Your task to perform on an android device: turn on bluetooth scan Image 0: 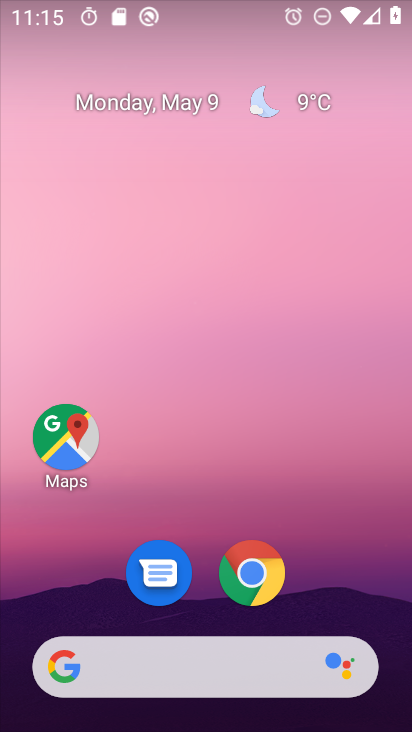
Step 0: drag from (313, 511) to (348, 117)
Your task to perform on an android device: turn on bluetooth scan Image 1: 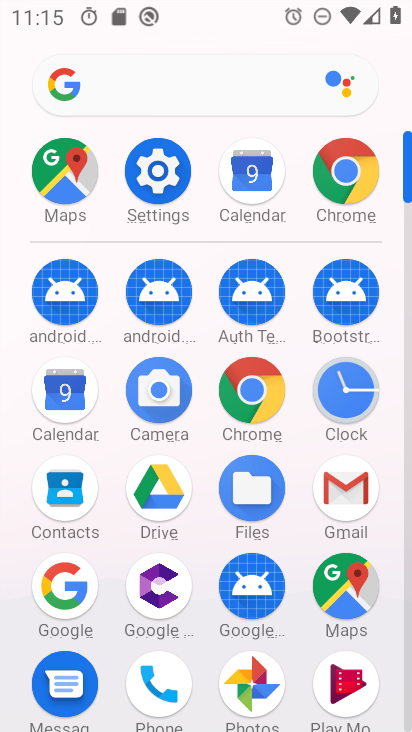
Step 1: click (156, 167)
Your task to perform on an android device: turn on bluetooth scan Image 2: 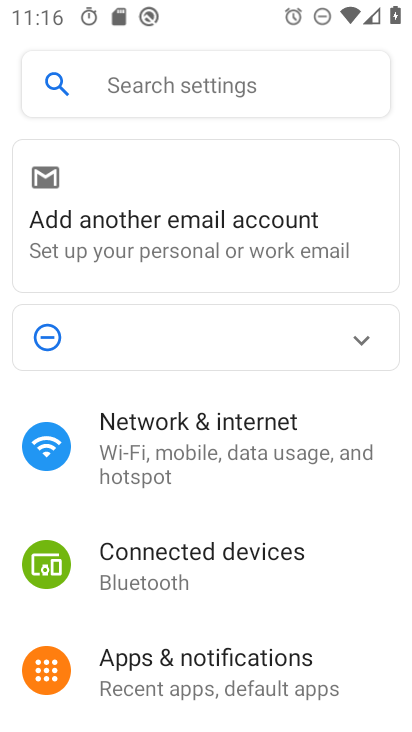
Step 2: drag from (229, 638) to (253, 192)
Your task to perform on an android device: turn on bluetooth scan Image 3: 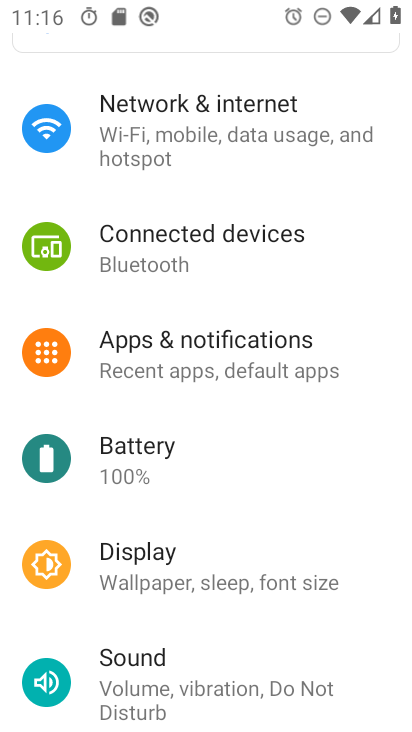
Step 3: drag from (256, 680) to (286, 233)
Your task to perform on an android device: turn on bluetooth scan Image 4: 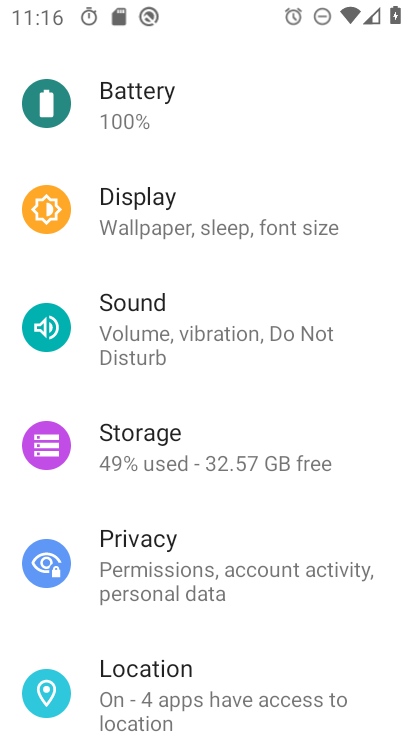
Step 4: click (179, 699)
Your task to perform on an android device: turn on bluetooth scan Image 5: 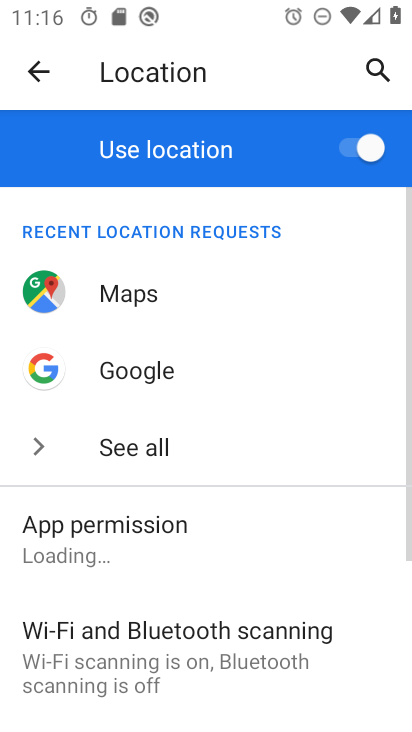
Step 5: drag from (311, 538) to (309, 143)
Your task to perform on an android device: turn on bluetooth scan Image 6: 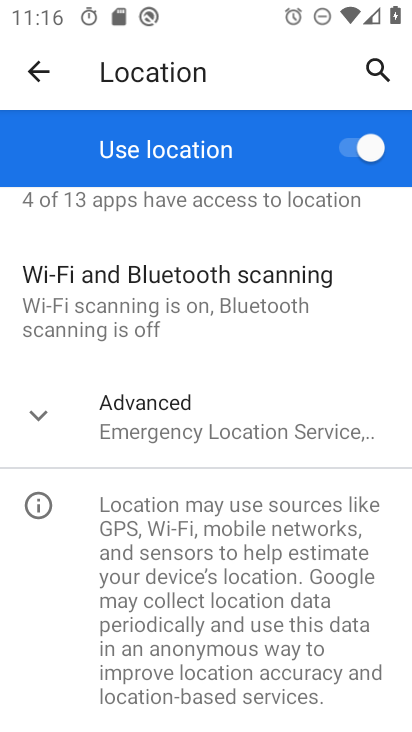
Step 6: click (201, 308)
Your task to perform on an android device: turn on bluetooth scan Image 7: 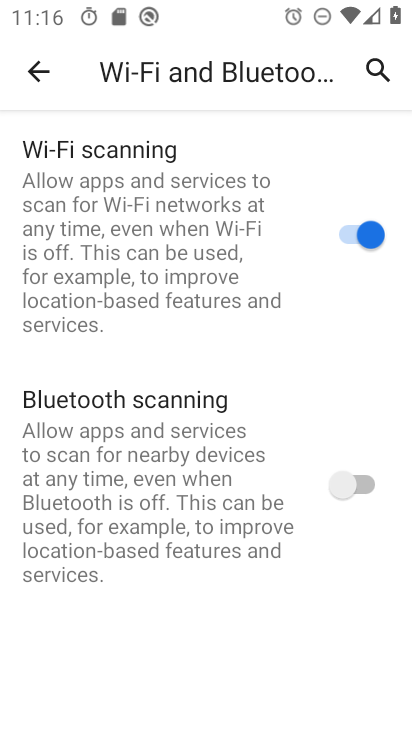
Step 7: click (335, 490)
Your task to perform on an android device: turn on bluetooth scan Image 8: 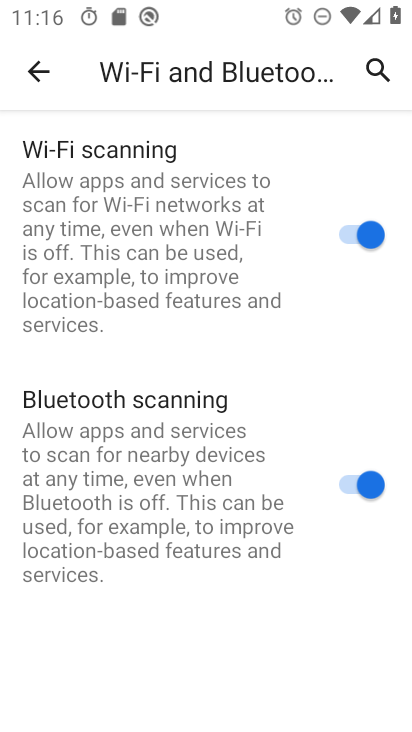
Step 8: task complete